Your task to perform on an android device: move an email to a new category in the gmail app Image 0: 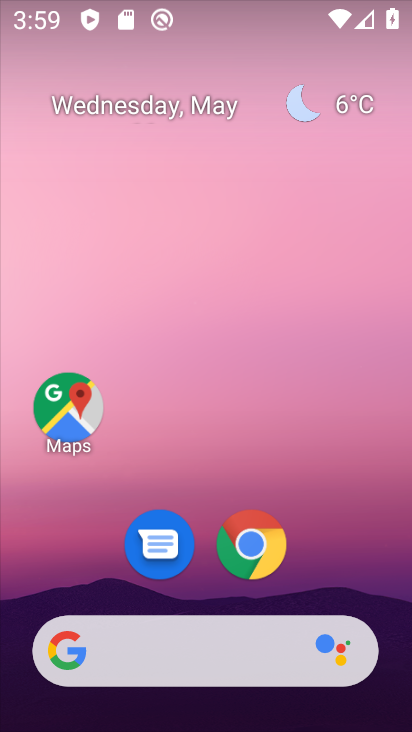
Step 0: press home button
Your task to perform on an android device: move an email to a new category in the gmail app Image 1: 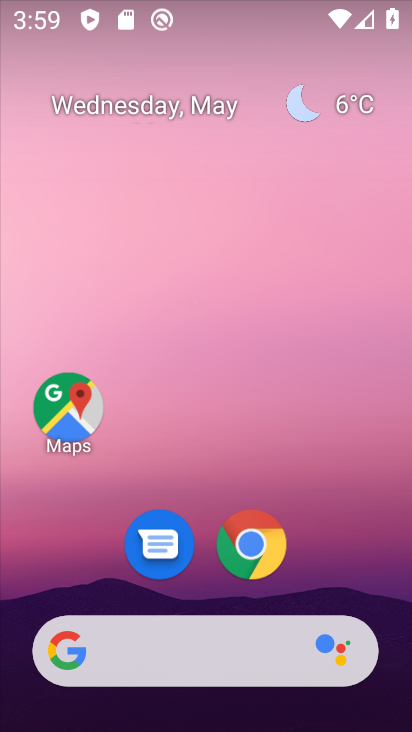
Step 1: drag from (23, 622) to (286, 56)
Your task to perform on an android device: move an email to a new category in the gmail app Image 2: 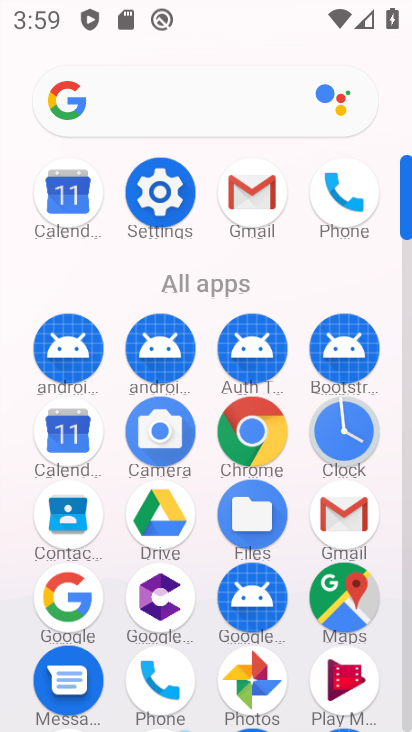
Step 2: click (266, 199)
Your task to perform on an android device: move an email to a new category in the gmail app Image 3: 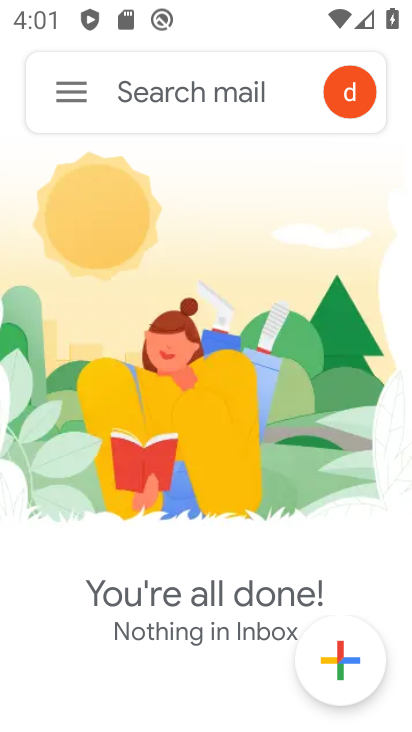
Step 3: task complete